Your task to perform on an android device: Open Google Image 0: 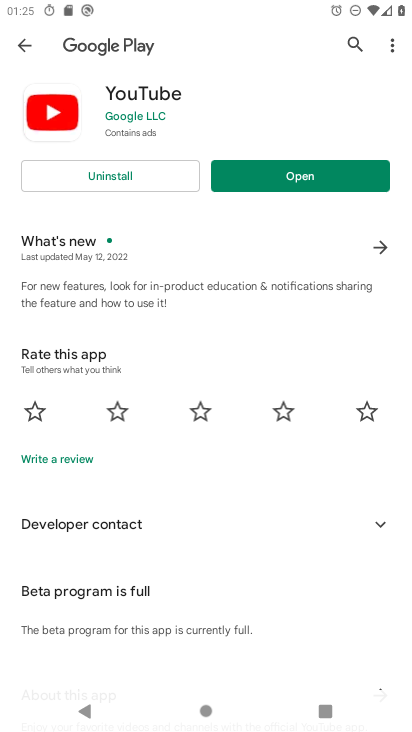
Step 0: press home button
Your task to perform on an android device: Open Google Image 1: 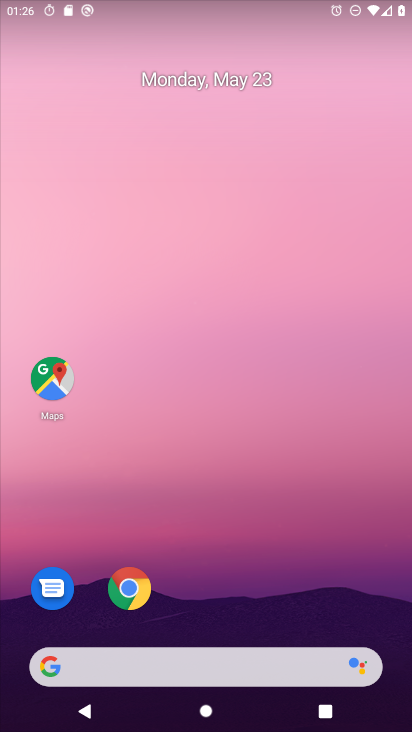
Step 1: drag from (260, 696) to (290, 167)
Your task to perform on an android device: Open Google Image 2: 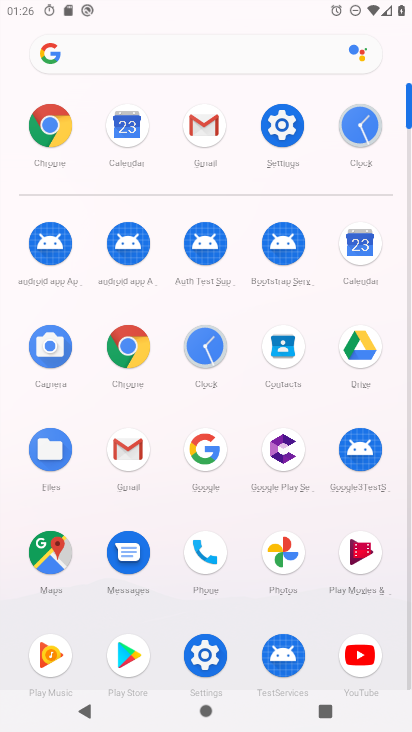
Step 2: click (57, 60)
Your task to perform on an android device: Open Google Image 3: 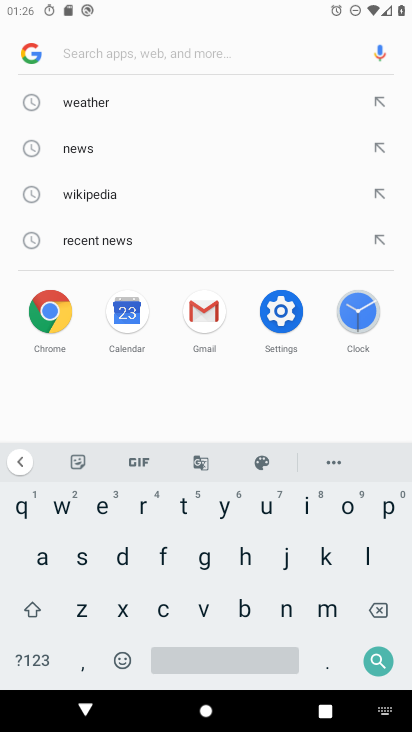
Step 3: click (37, 60)
Your task to perform on an android device: Open Google Image 4: 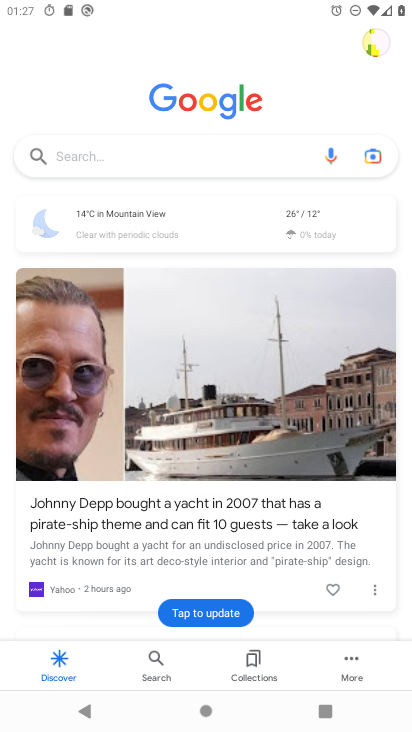
Step 4: task complete